Your task to perform on an android device: Do I have any events this weekend? Image 0: 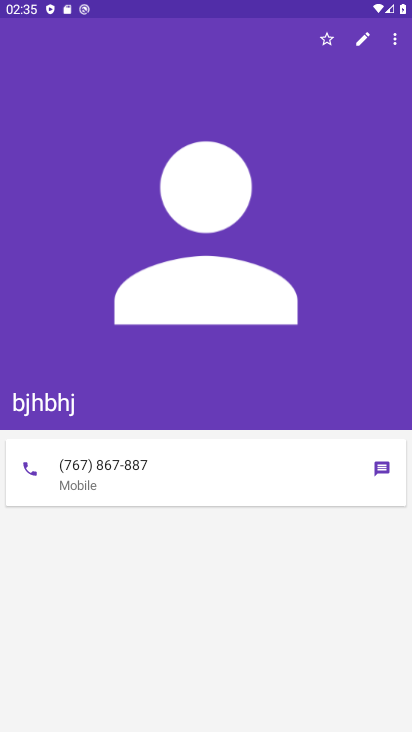
Step 0: press home button
Your task to perform on an android device: Do I have any events this weekend? Image 1: 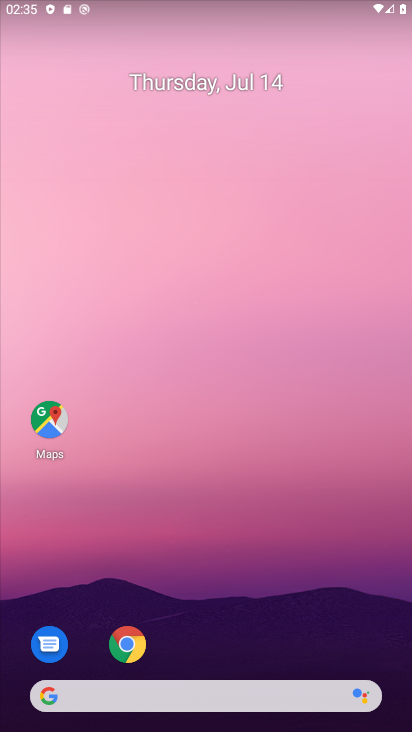
Step 1: drag from (240, 623) to (204, 137)
Your task to perform on an android device: Do I have any events this weekend? Image 2: 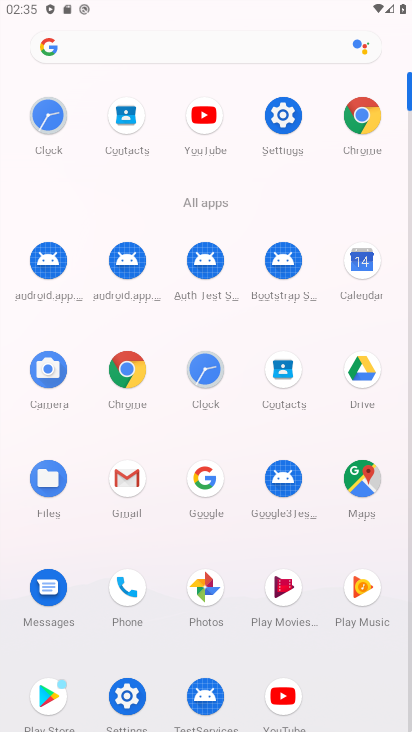
Step 2: click (370, 276)
Your task to perform on an android device: Do I have any events this weekend? Image 3: 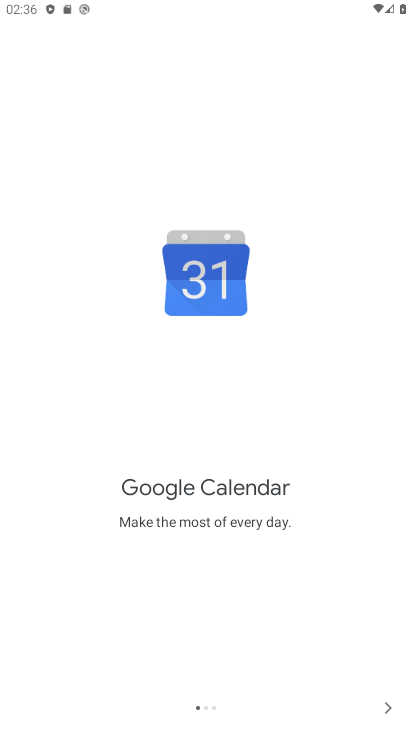
Step 3: click (389, 714)
Your task to perform on an android device: Do I have any events this weekend? Image 4: 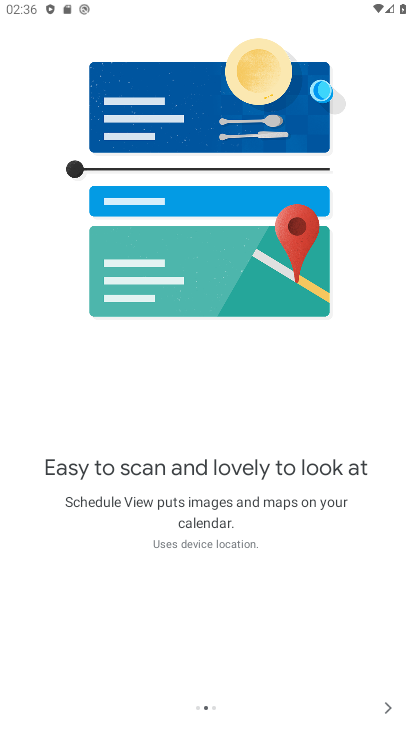
Step 4: click (389, 714)
Your task to perform on an android device: Do I have any events this weekend? Image 5: 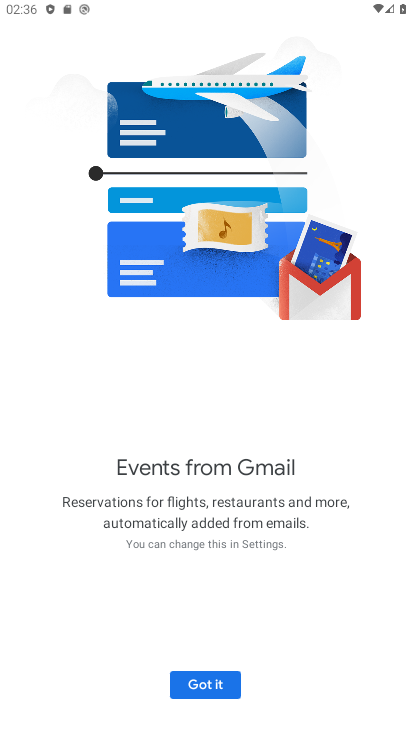
Step 5: click (200, 696)
Your task to perform on an android device: Do I have any events this weekend? Image 6: 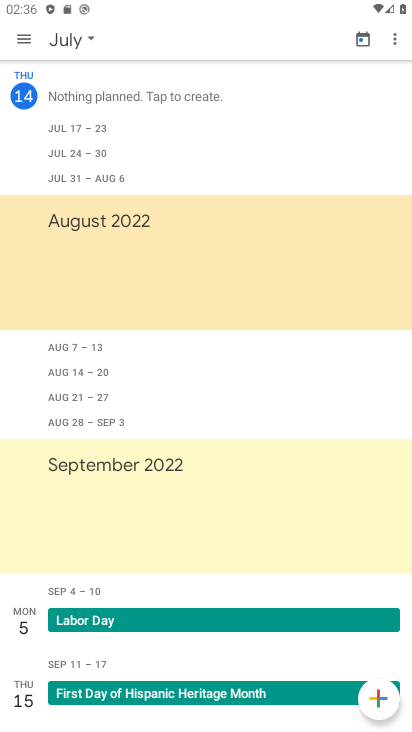
Step 6: click (22, 46)
Your task to perform on an android device: Do I have any events this weekend? Image 7: 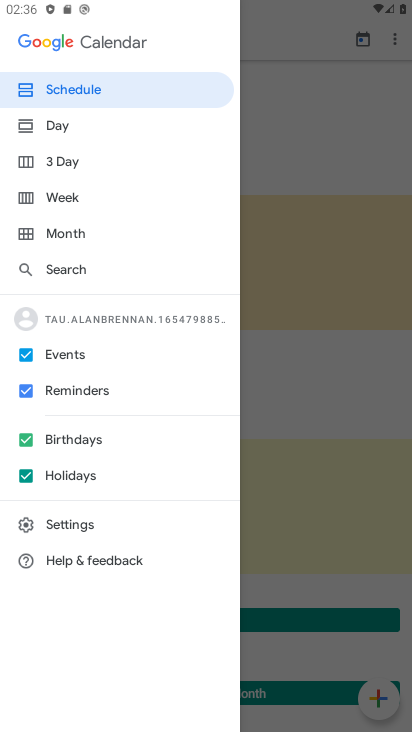
Step 7: click (23, 473)
Your task to perform on an android device: Do I have any events this weekend? Image 8: 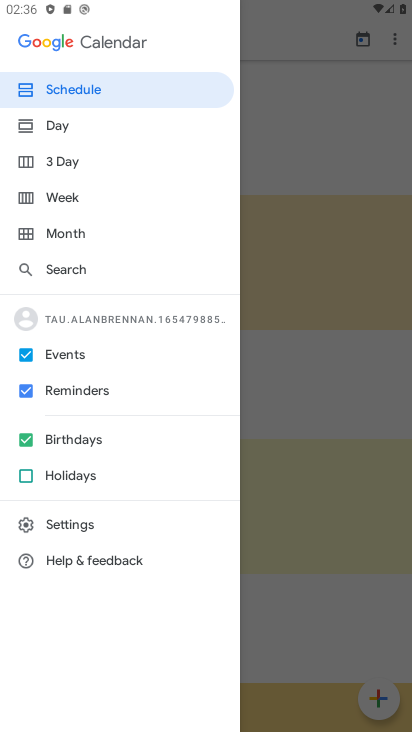
Step 8: click (22, 443)
Your task to perform on an android device: Do I have any events this weekend? Image 9: 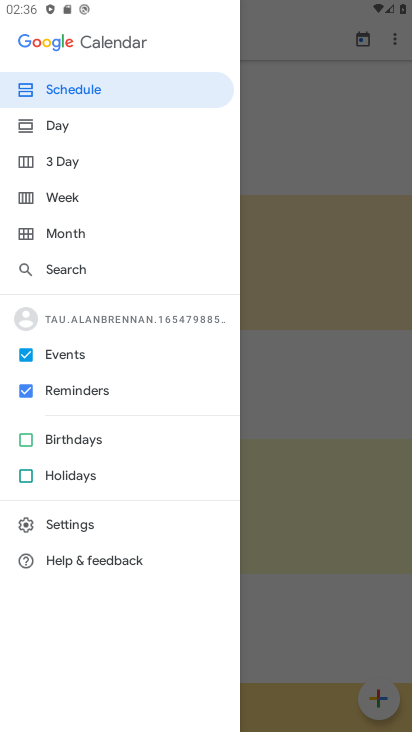
Step 9: click (20, 396)
Your task to perform on an android device: Do I have any events this weekend? Image 10: 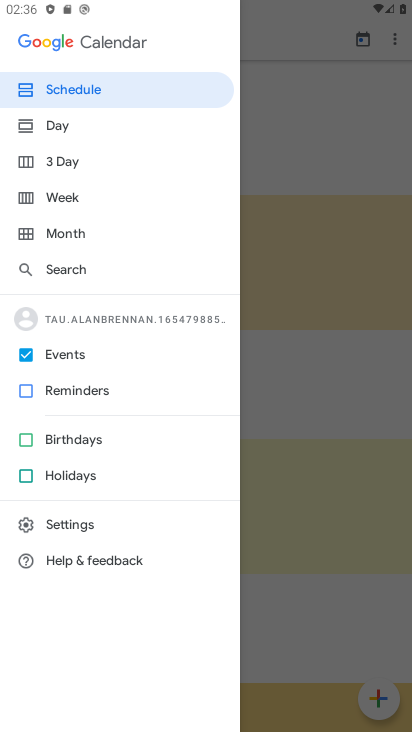
Step 10: click (51, 152)
Your task to perform on an android device: Do I have any events this weekend? Image 11: 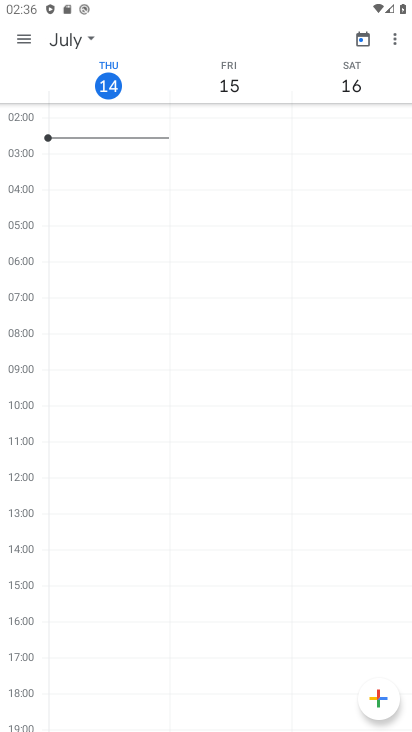
Step 11: task complete